Your task to perform on an android device: open a new tab in the chrome app Image 0: 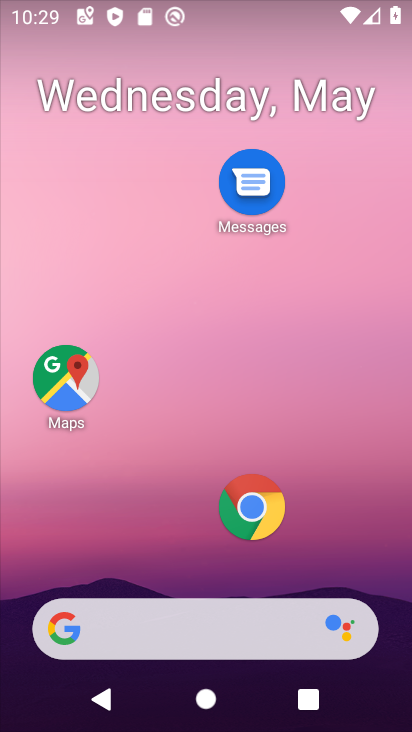
Step 0: click (247, 499)
Your task to perform on an android device: open a new tab in the chrome app Image 1: 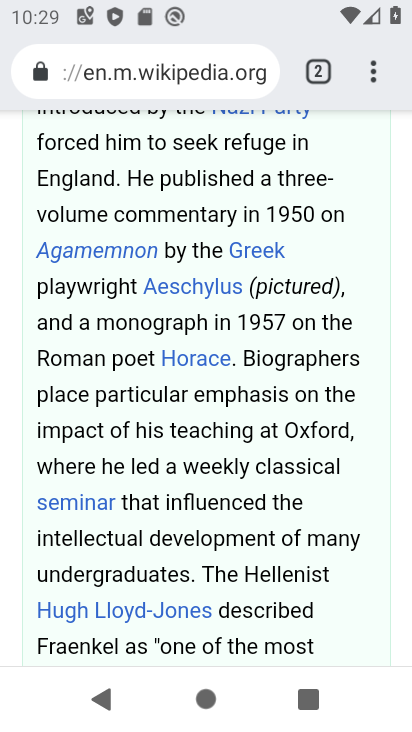
Step 1: click (319, 65)
Your task to perform on an android device: open a new tab in the chrome app Image 2: 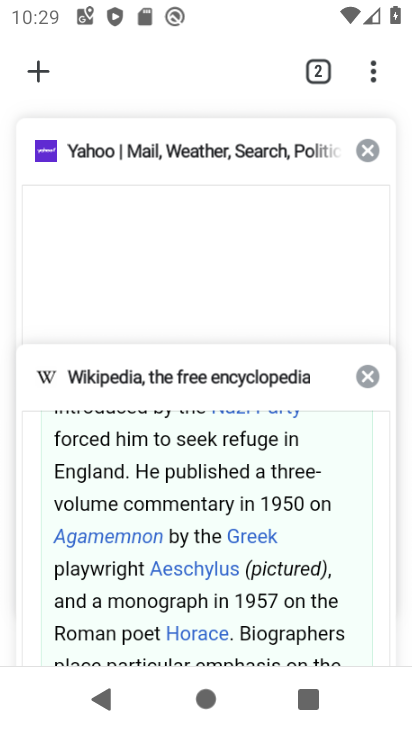
Step 2: click (37, 68)
Your task to perform on an android device: open a new tab in the chrome app Image 3: 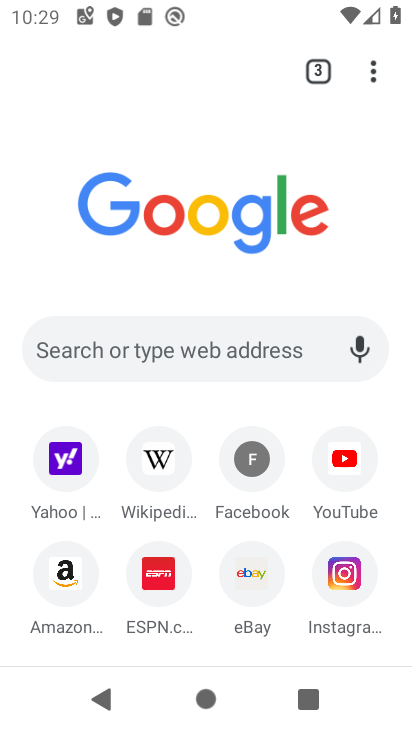
Step 3: task complete